Your task to perform on an android device: turn on location history Image 0: 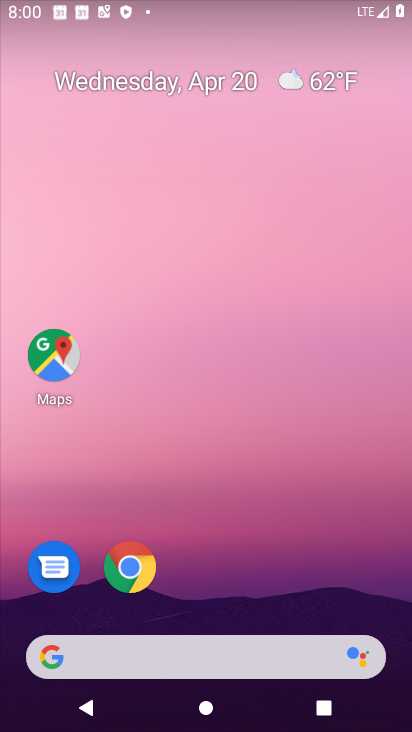
Step 0: drag from (296, 523) to (335, 13)
Your task to perform on an android device: turn on location history Image 1: 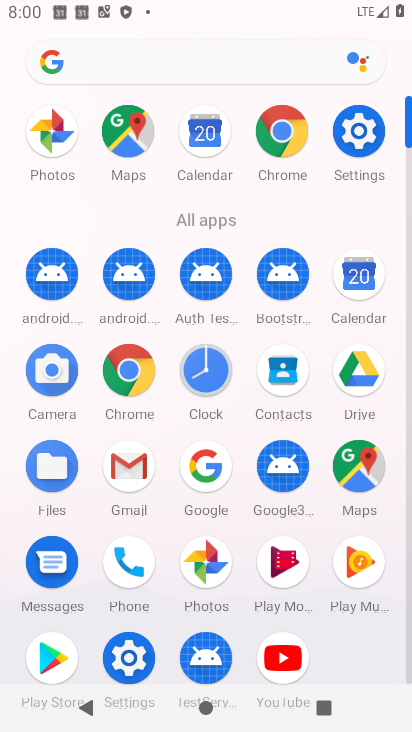
Step 1: click (374, 141)
Your task to perform on an android device: turn on location history Image 2: 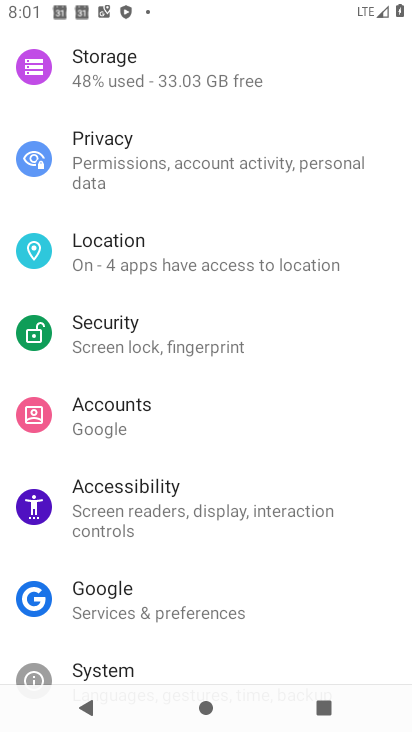
Step 2: click (158, 256)
Your task to perform on an android device: turn on location history Image 3: 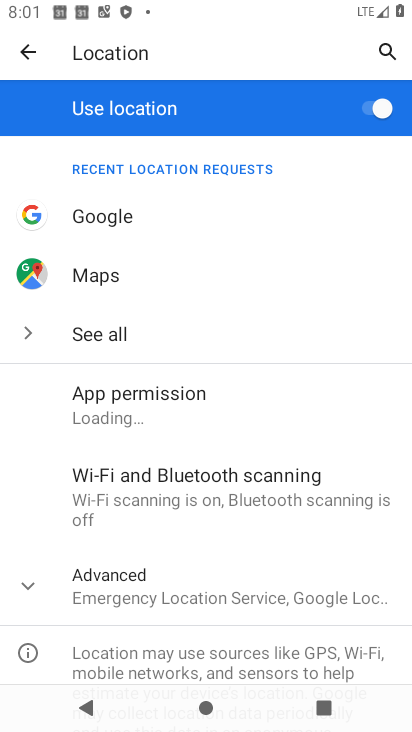
Step 3: drag from (240, 606) to (217, 238)
Your task to perform on an android device: turn on location history Image 4: 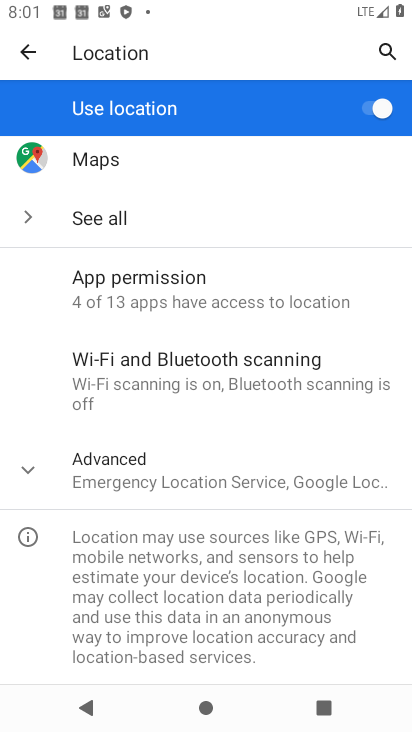
Step 4: click (171, 482)
Your task to perform on an android device: turn on location history Image 5: 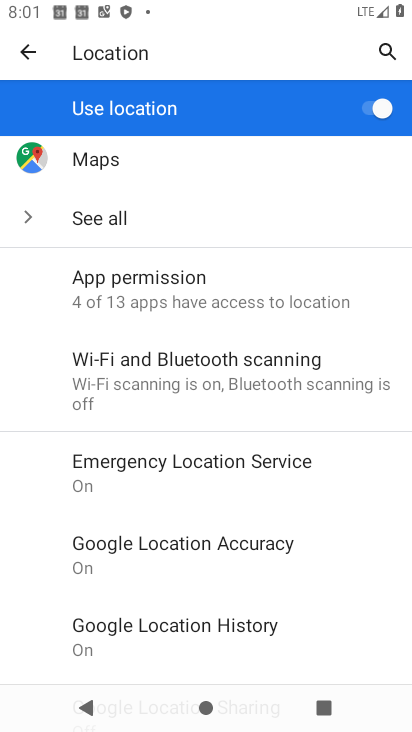
Step 5: drag from (216, 644) to (245, 399)
Your task to perform on an android device: turn on location history Image 6: 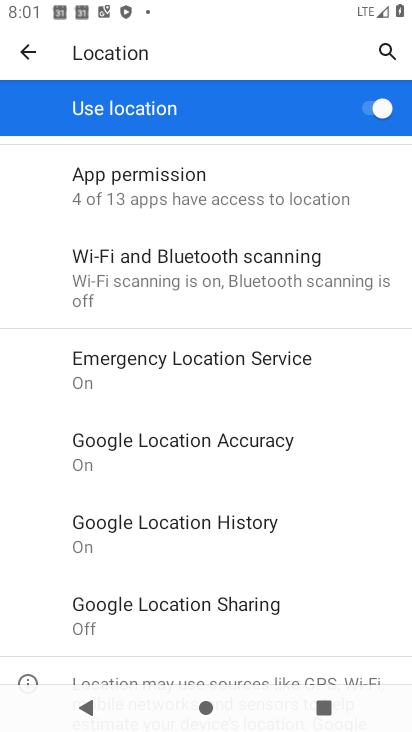
Step 6: click (188, 526)
Your task to perform on an android device: turn on location history Image 7: 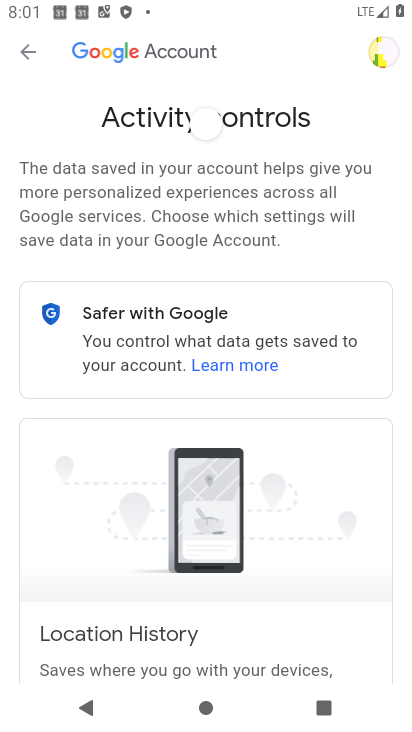
Step 7: drag from (162, 507) to (165, 301)
Your task to perform on an android device: turn on location history Image 8: 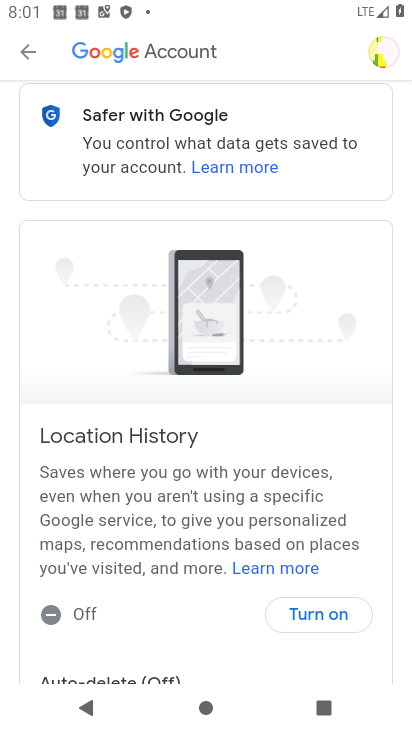
Step 8: drag from (208, 533) to (251, 286)
Your task to perform on an android device: turn on location history Image 9: 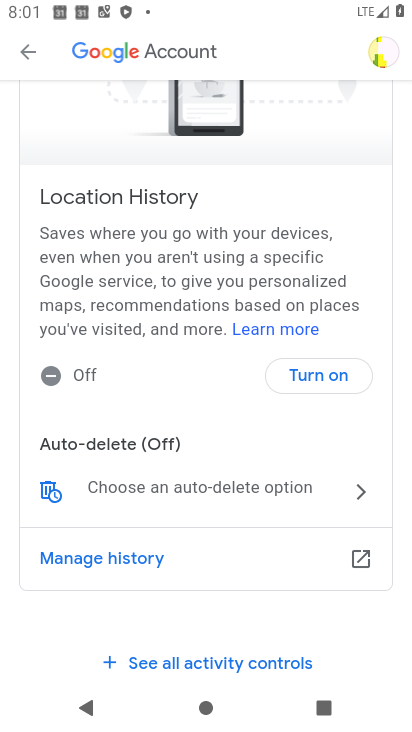
Step 9: click (30, 52)
Your task to perform on an android device: turn on location history Image 10: 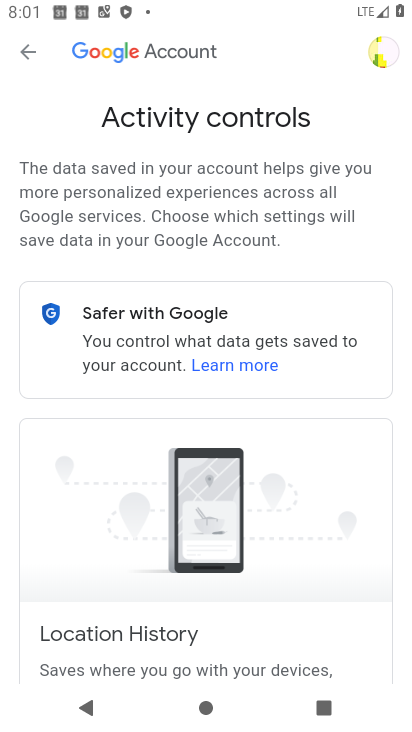
Step 10: click (30, 52)
Your task to perform on an android device: turn on location history Image 11: 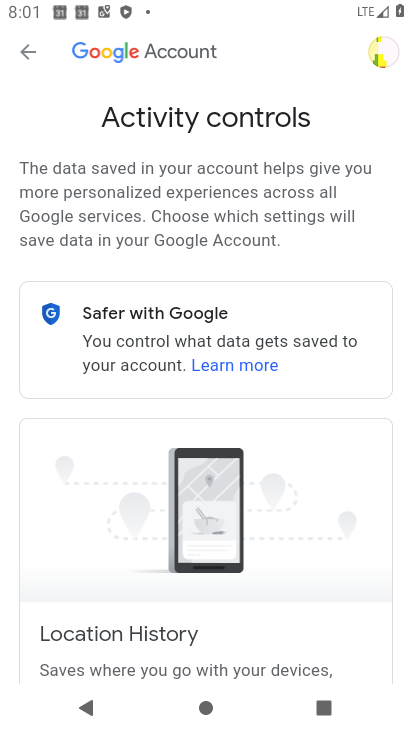
Step 11: click (30, 52)
Your task to perform on an android device: turn on location history Image 12: 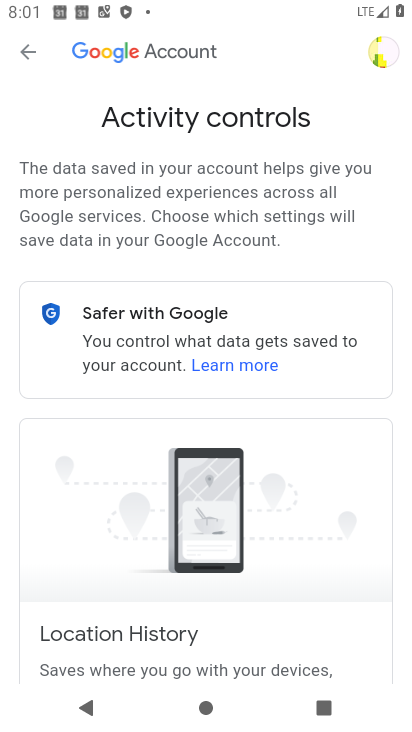
Step 12: click (16, 56)
Your task to perform on an android device: turn on location history Image 13: 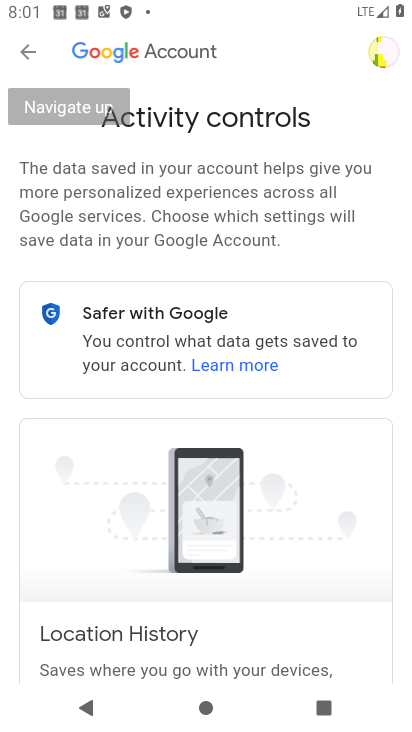
Step 13: click (23, 41)
Your task to perform on an android device: turn on location history Image 14: 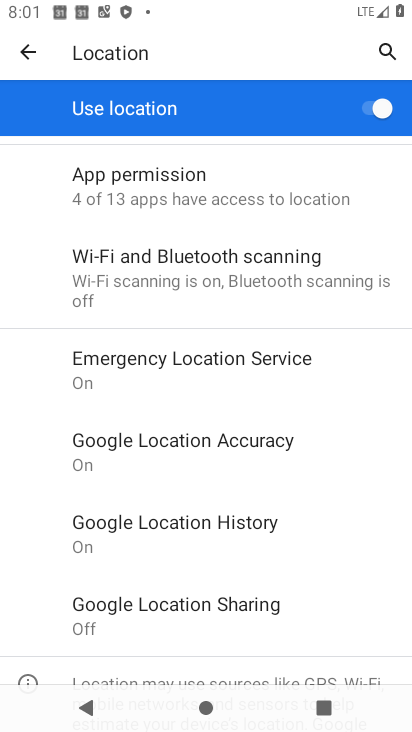
Step 14: click (221, 524)
Your task to perform on an android device: turn on location history Image 15: 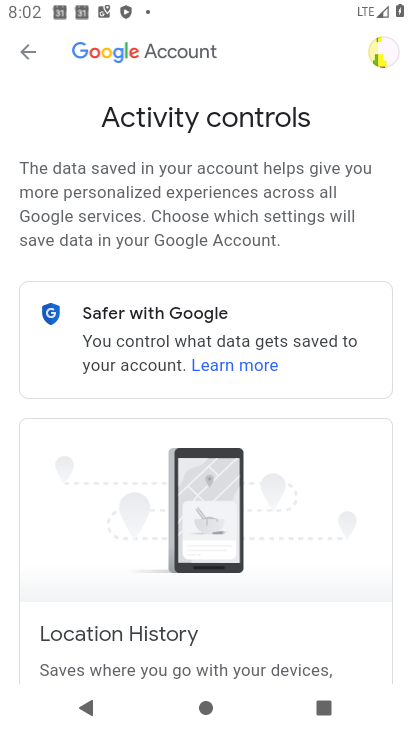
Step 15: drag from (266, 640) to (261, 96)
Your task to perform on an android device: turn on location history Image 16: 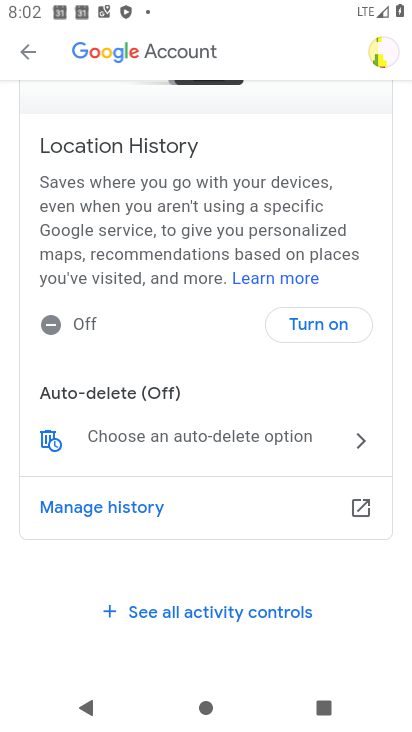
Step 16: click (314, 328)
Your task to perform on an android device: turn on location history Image 17: 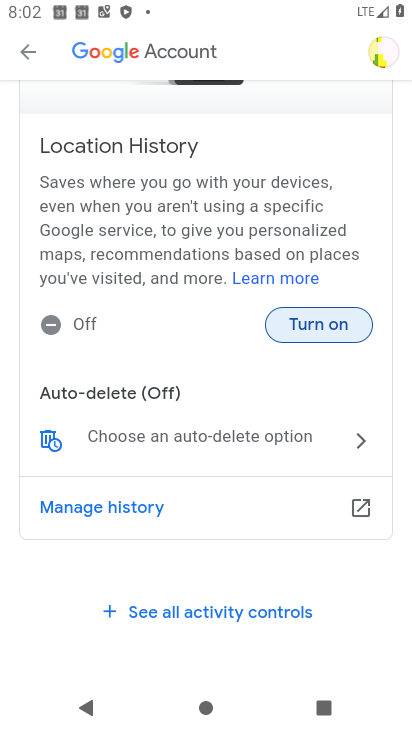
Step 17: click (314, 328)
Your task to perform on an android device: turn on location history Image 18: 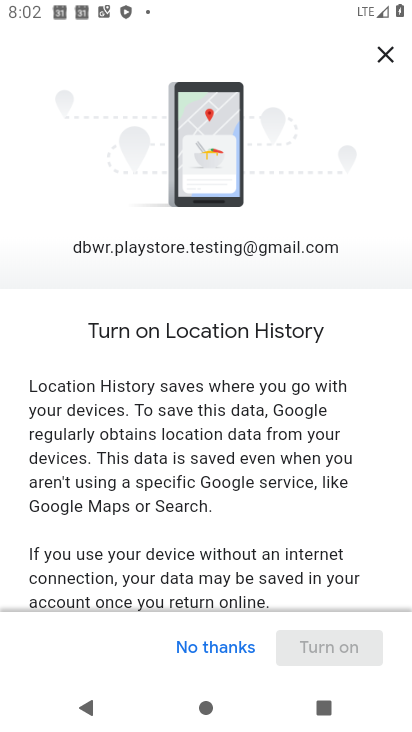
Step 18: drag from (231, 574) to (236, 213)
Your task to perform on an android device: turn on location history Image 19: 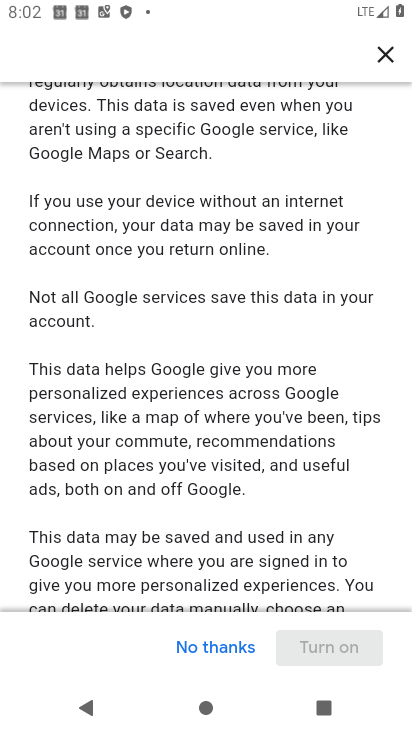
Step 19: drag from (268, 477) to (245, 144)
Your task to perform on an android device: turn on location history Image 20: 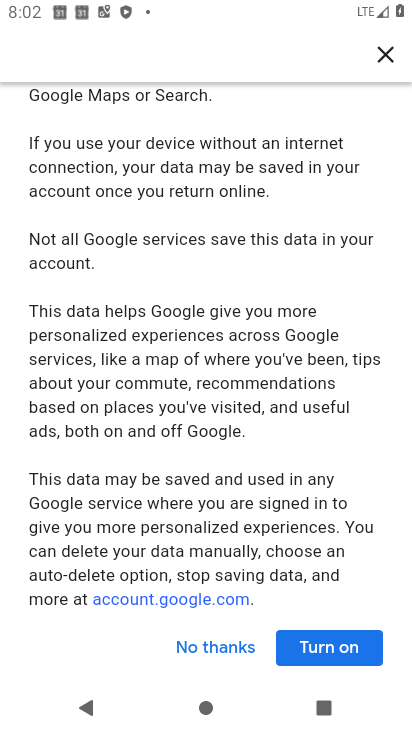
Step 20: drag from (279, 505) to (253, 191)
Your task to perform on an android device: turn on location history Image 21: 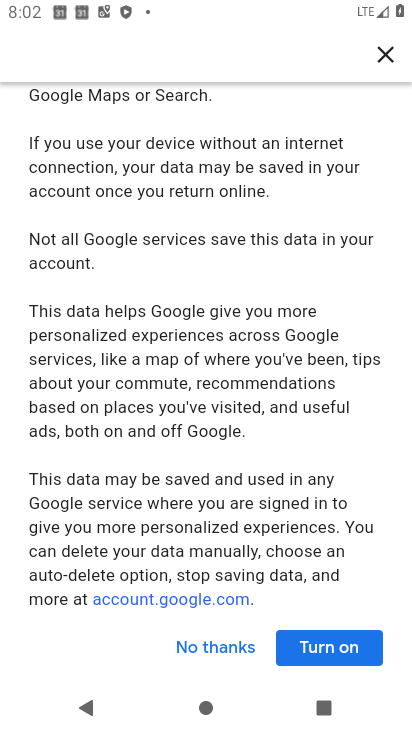
Step 21: click (355, 647)
Your task to perform on an android device: turn on location history Image 22: 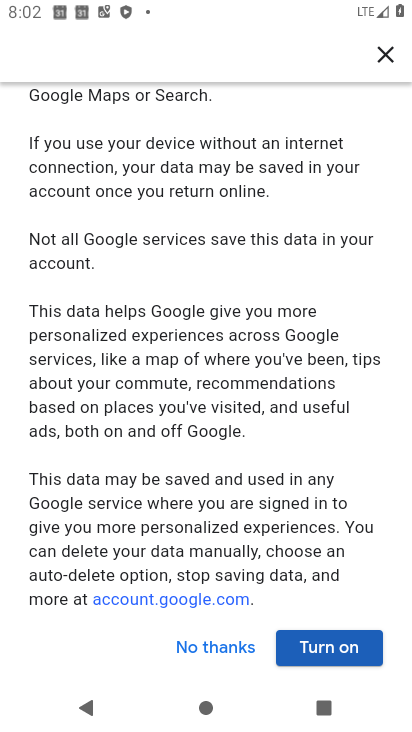
Step 22: click (318, 650)
Your task to perform on an android device: turn on location history Image 23: 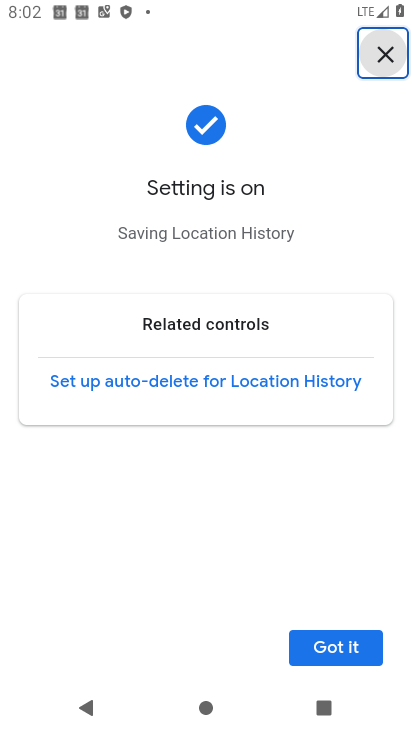
Step 23: task complete